Your task to perform on an android device: toggle airplane mode Image 0: 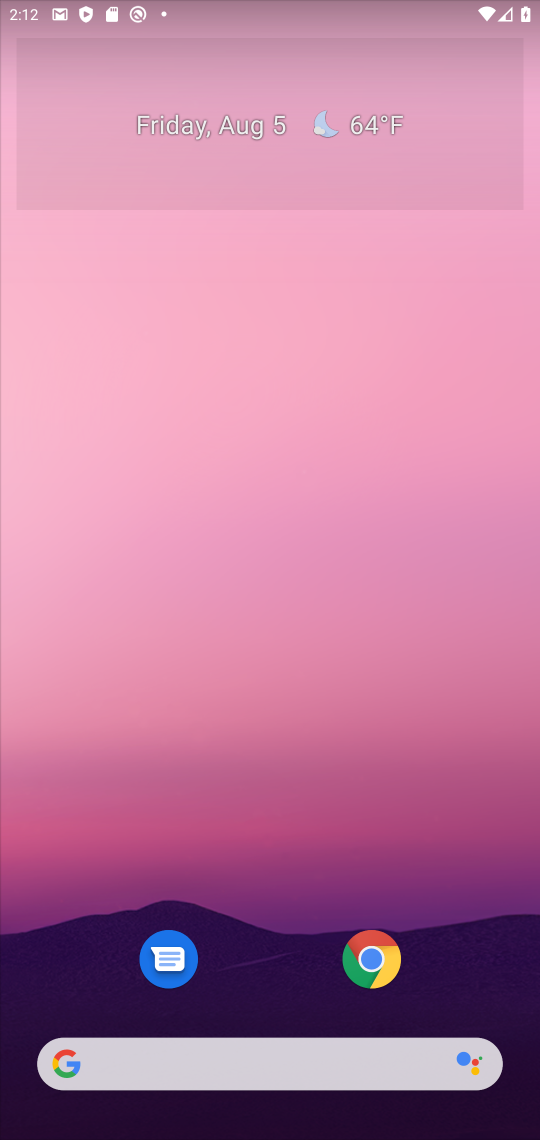
Step 0: drag from (188, 1111) to (336, 109)
Your task to perform on an android device: toggle airplane mode Image 1: 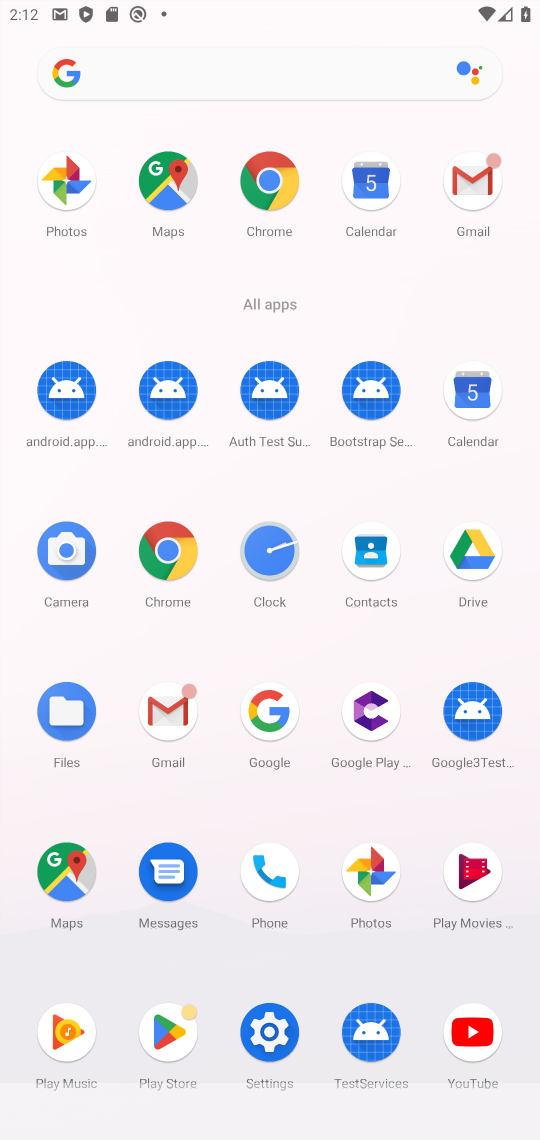
Step 1: click (248, 1013)
Your task to perform on an android device: toggle airplane mode Image 2: 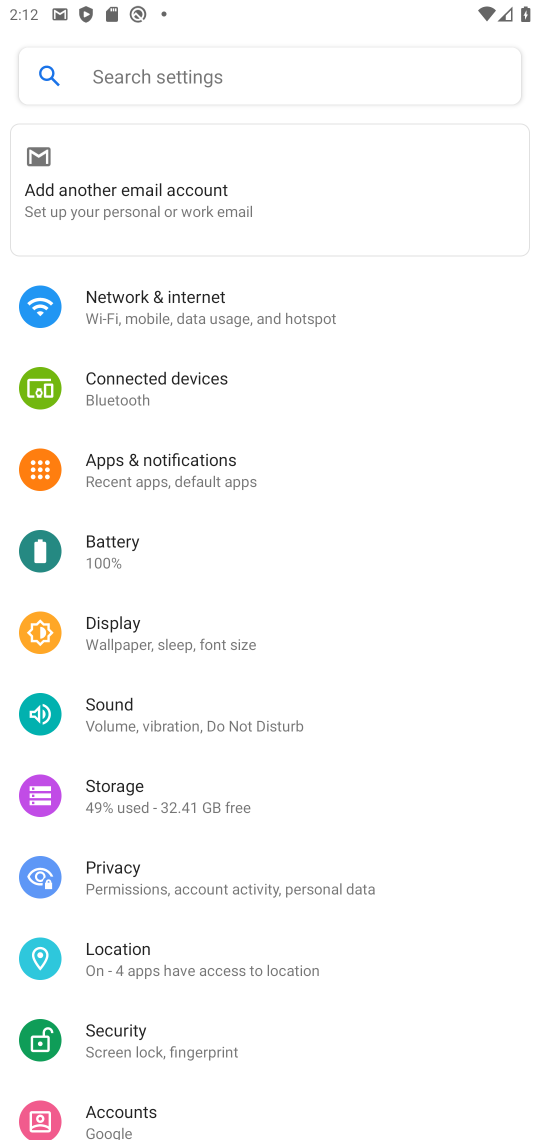
Step 2: click (347, 286)
Your task to perform on an android device: toggle airplane mode Image 3: 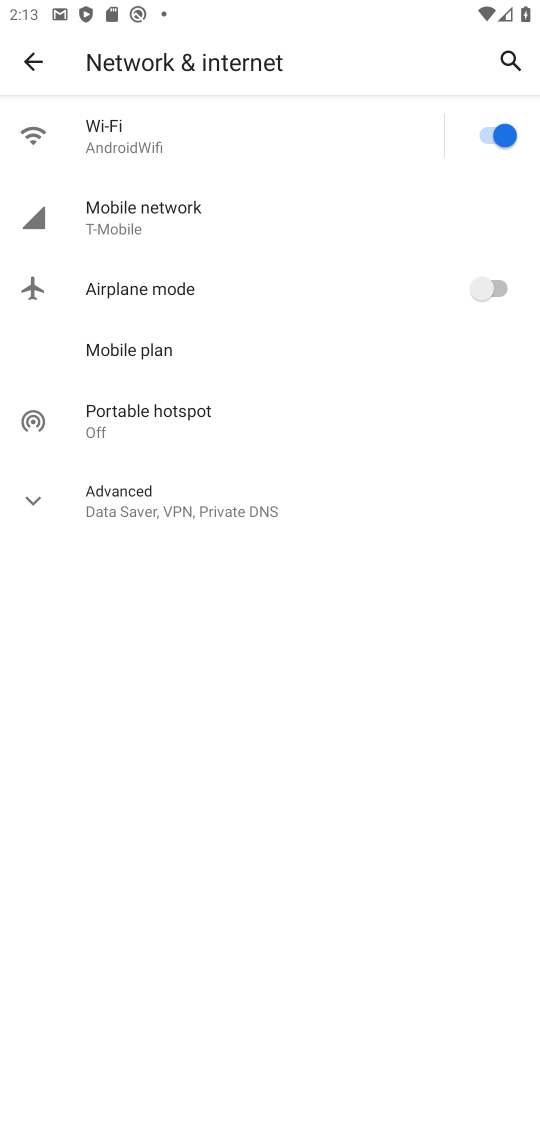
Step 3: click (501, 287)
Your task to perform on an android device: toggle airplane mode Image 4: 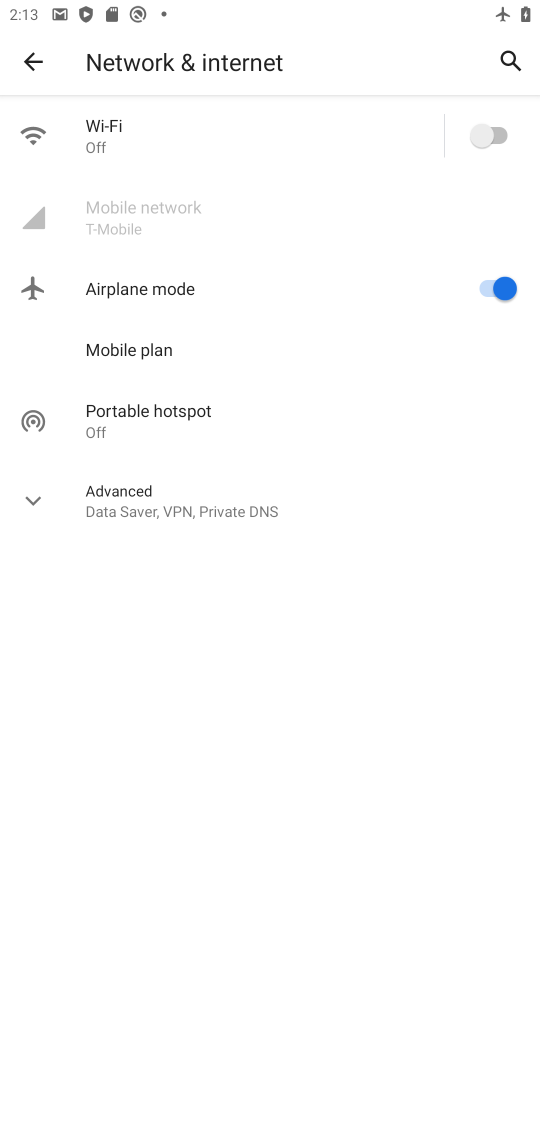
Step 4: task complete